Your task to perform on an android device: Clear all items from cart on walmart.com. Search for razer blade on walmart.com, select the first entry, add it to the cart, then select checkout. Image 0: 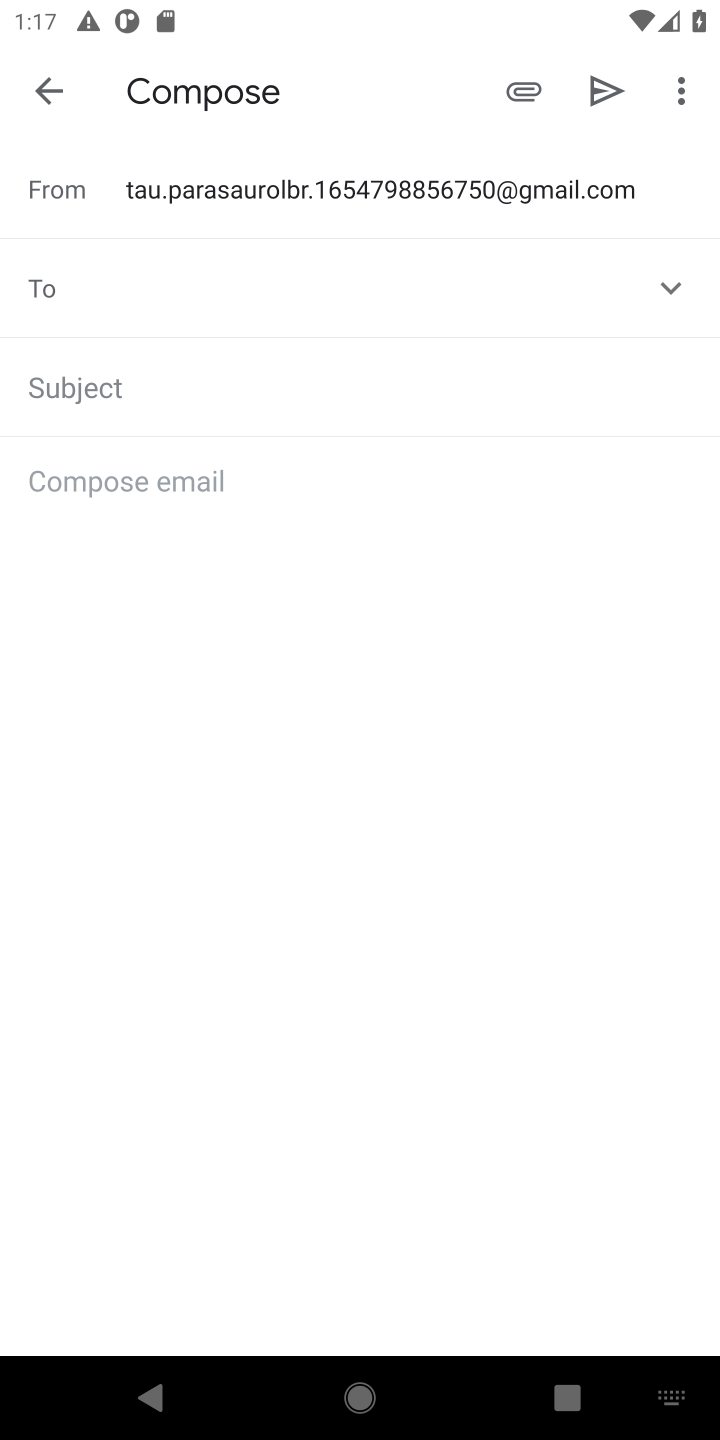
Step 0: press home button
Your task to perform on an android device: Clear all items from cart on walmart.com. Search for razer blade on walmart.com, select the first entry, add it to the cart, then select checkout. Image 1: 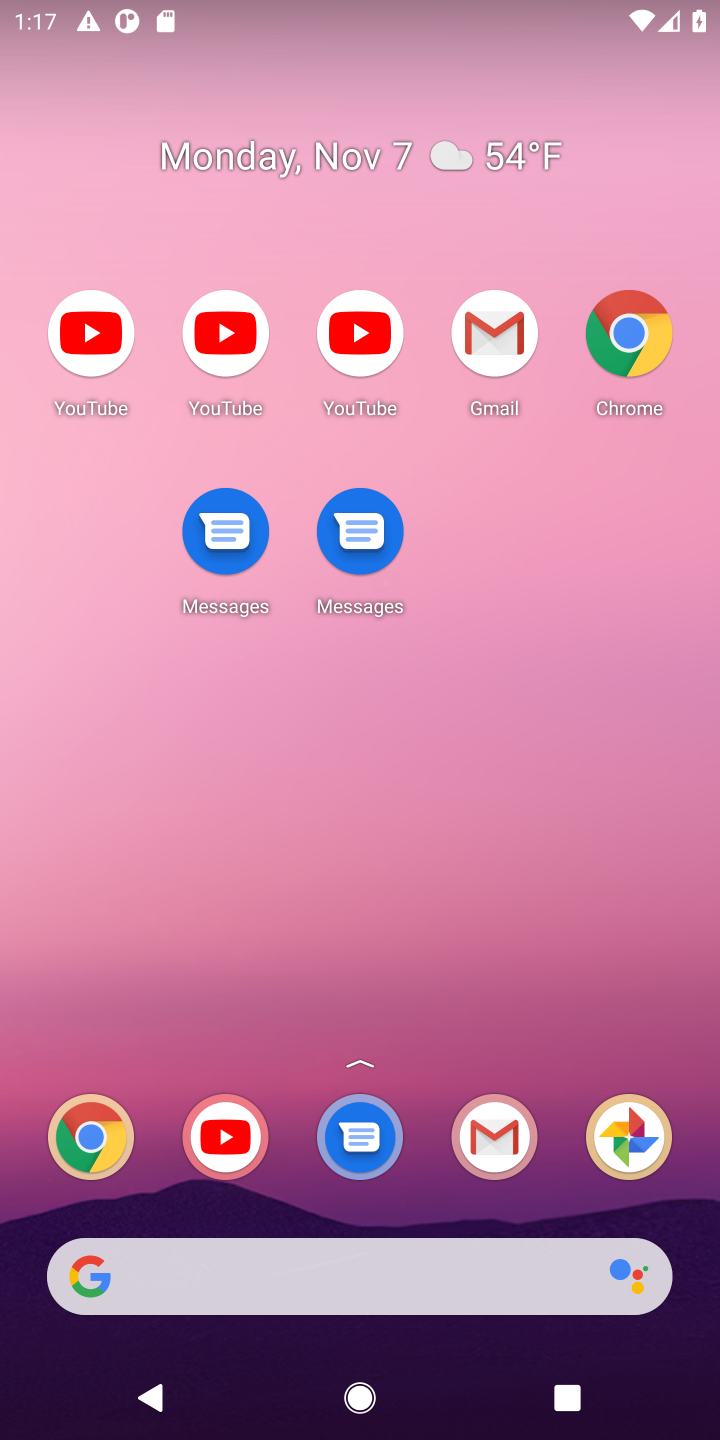
Step 1: drag from (414, 1068) to (389, 99)
Your task to perform on an android device: Clear all items from cart on walmart.com. Search for razer blade on walmart.com, select the first entry, add it to the cart, then select checkout. Image 2: 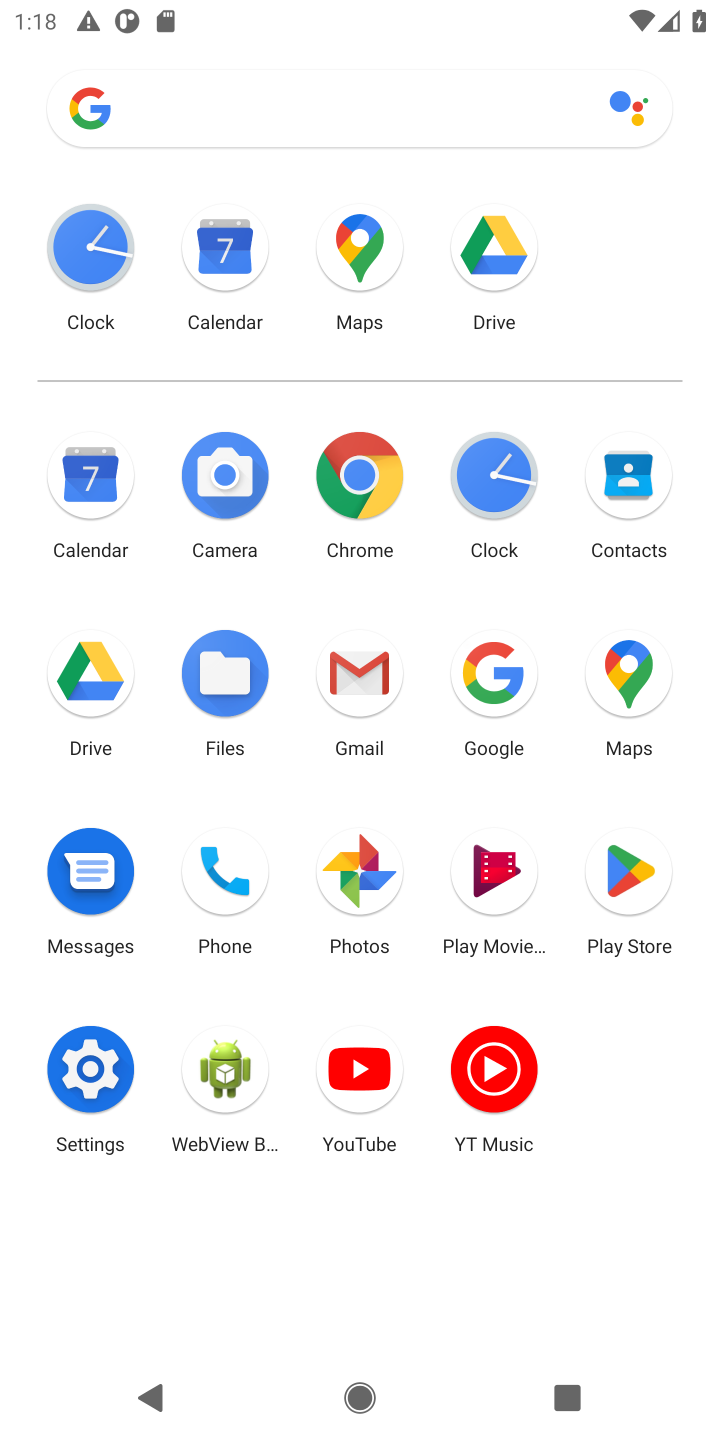
Step 2: click (363, 485)
Your task to perform on an android device: Clear all items from cart on walmart.com. Search for razer blade on walmart.com, select the first entry, add it to the cart, then select checkout. Image 3: 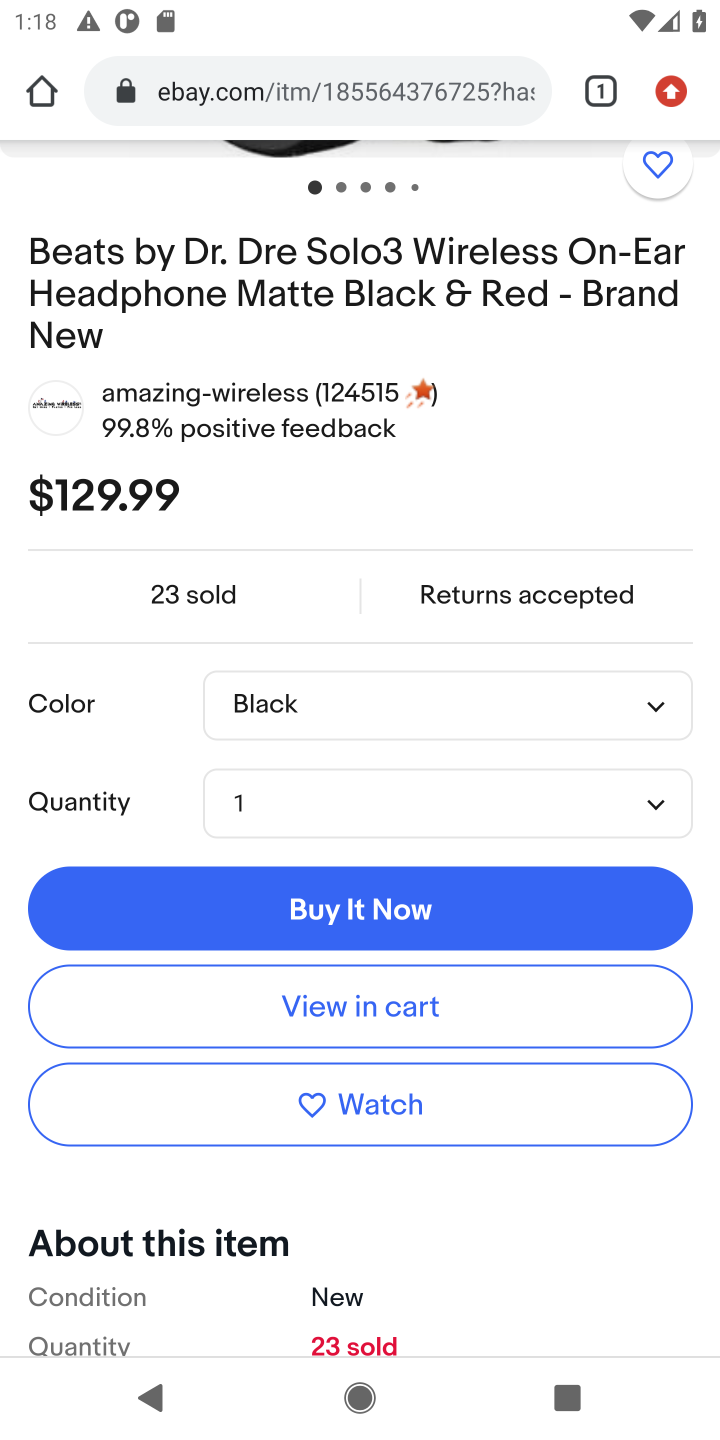
Step 3: click (426, 89)
Your task to perform on an android device: Clear all items from cart on walmart.com. Search for razer blade on walmart.com, select the first entry, add it to the cart, then select checkout. Image 4: 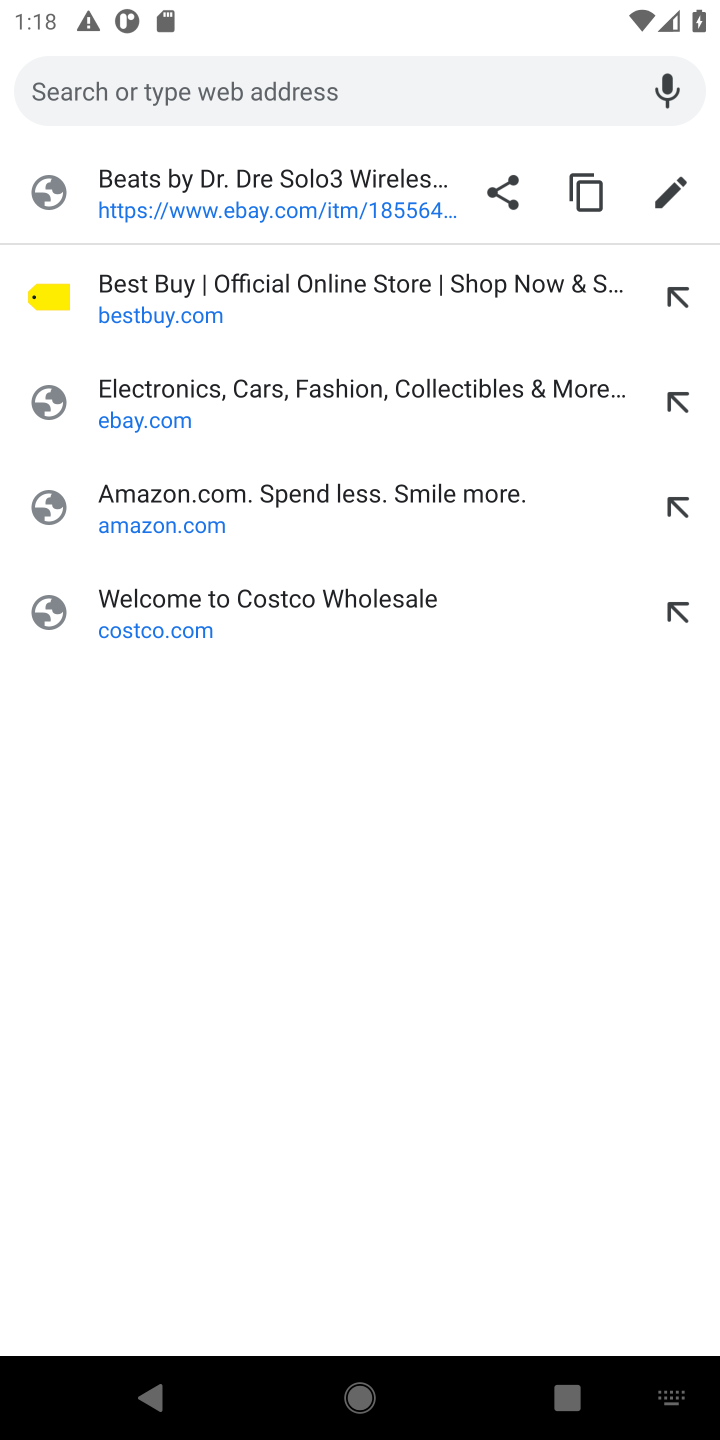
Step 4: type "walmart.com"
Your task to perform on an android device: Clear all items from cart on walmart.com. Search for razer blade on walmart.com, select the first entry, add it to the cart, then select checkout. Image 5: 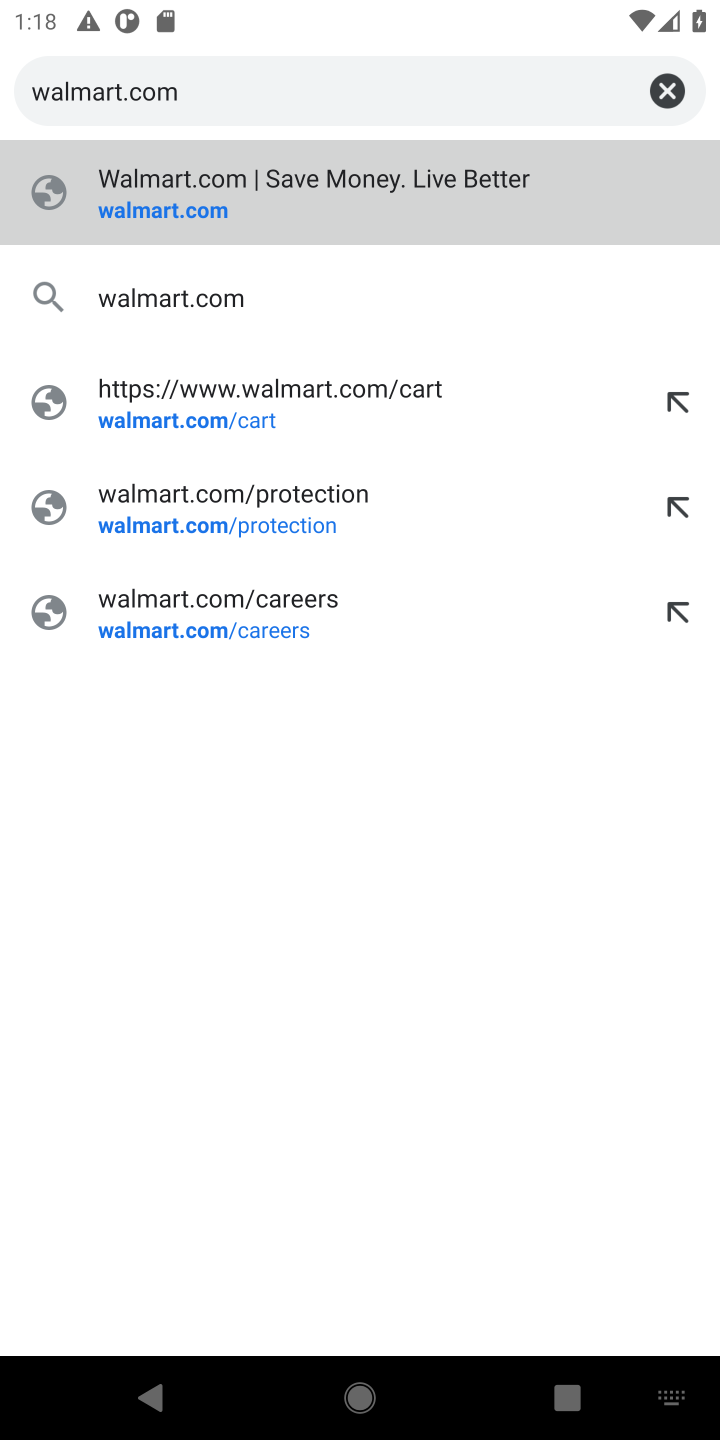
Step 5: press enter
Your task to perform on an android device: Clear all items from cart on walmart.com. Search for razer blade on walmart.com, select the first entry, add it to the cart, then select checkout. Image 6: 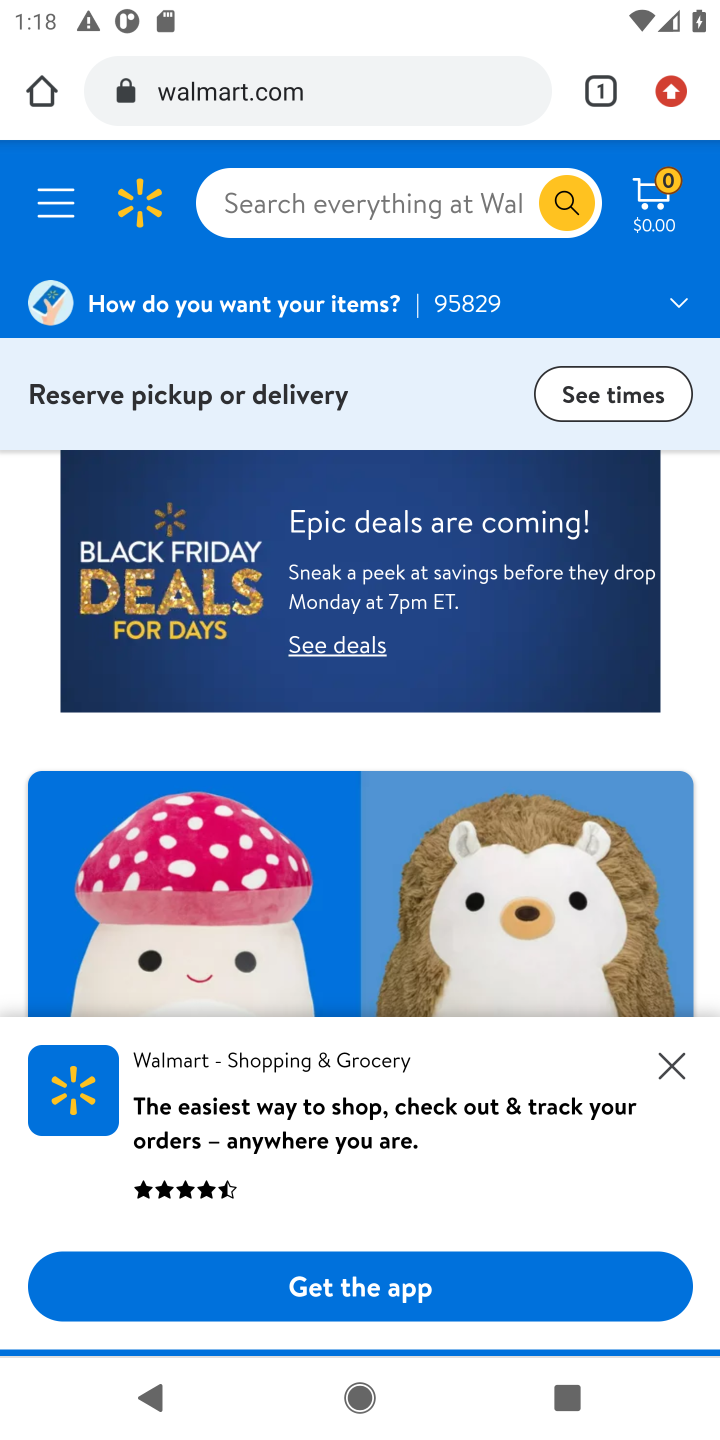
Step 6: click (667, 210)
Your task to perform on an android device: Clear all items from cart on walmart.com. Search for razer blade on walmart.com, select the first entry, add it to the cart, then select checkout. Image 7: 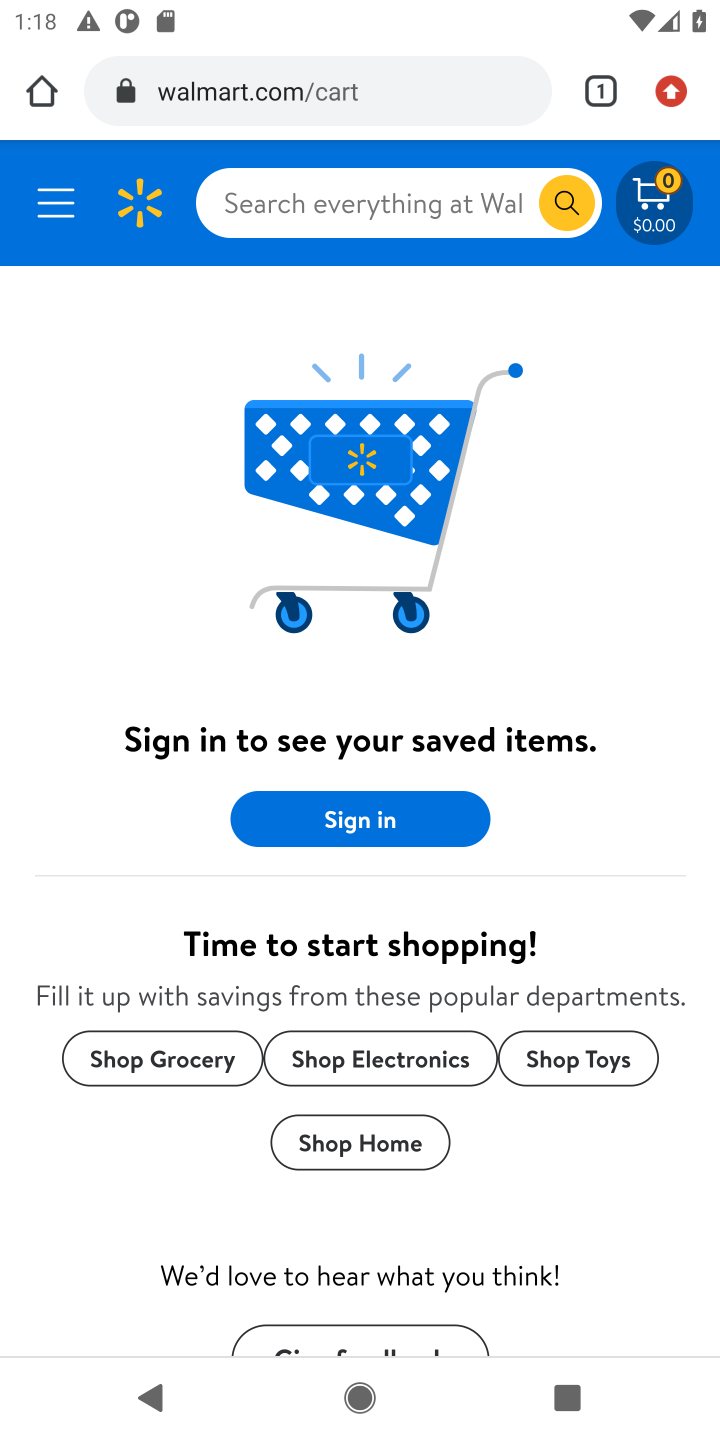
Step 7: click (412, 183)
Your task to perform on an android device: Clear all items from cart on walmart.com. Search for razer blade on walmart.com, select the first entry, add it to the cart, then select checkout. Image 8: 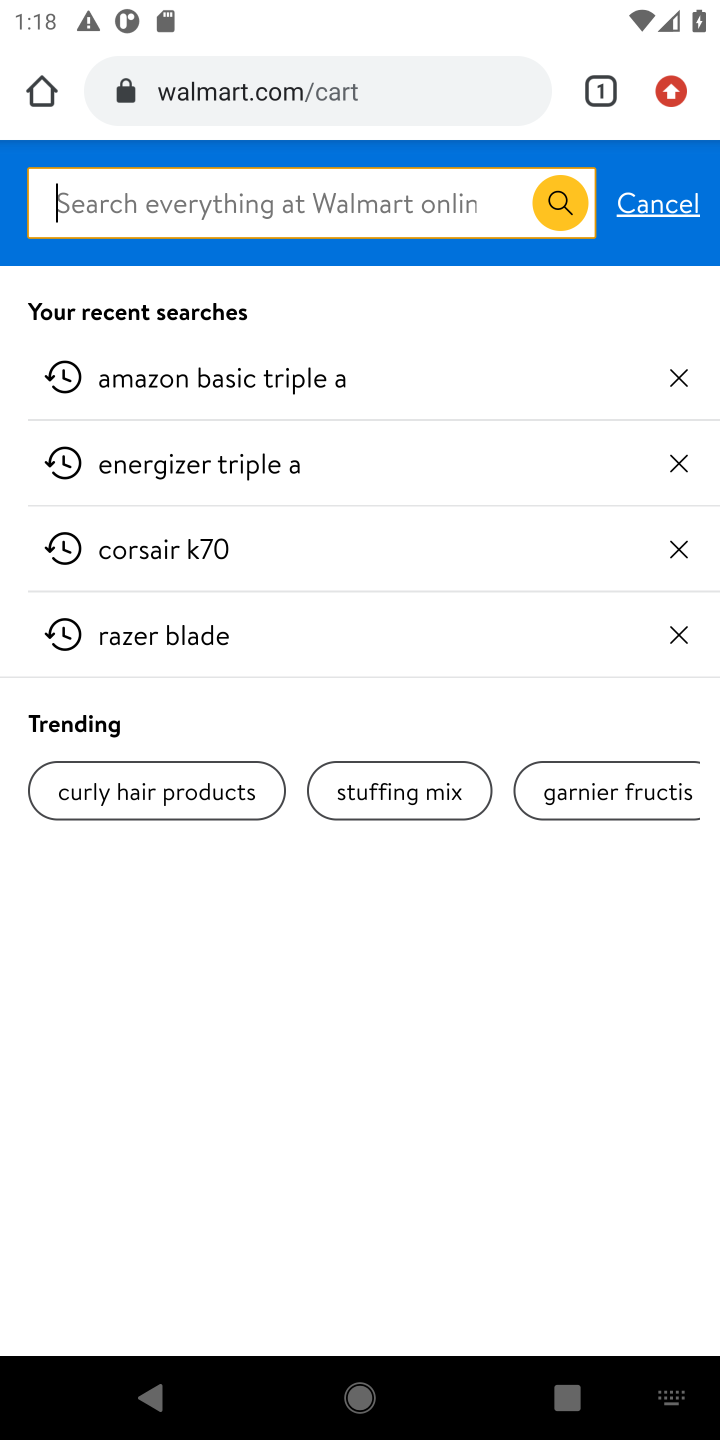
Step 8: type "razer blade"
Your task to perform on an android device: Clear all items from cart on walmart.com. Search for razer blade on walmart.com, select the first entry, add it to the cart, then select checkout. Image 9: 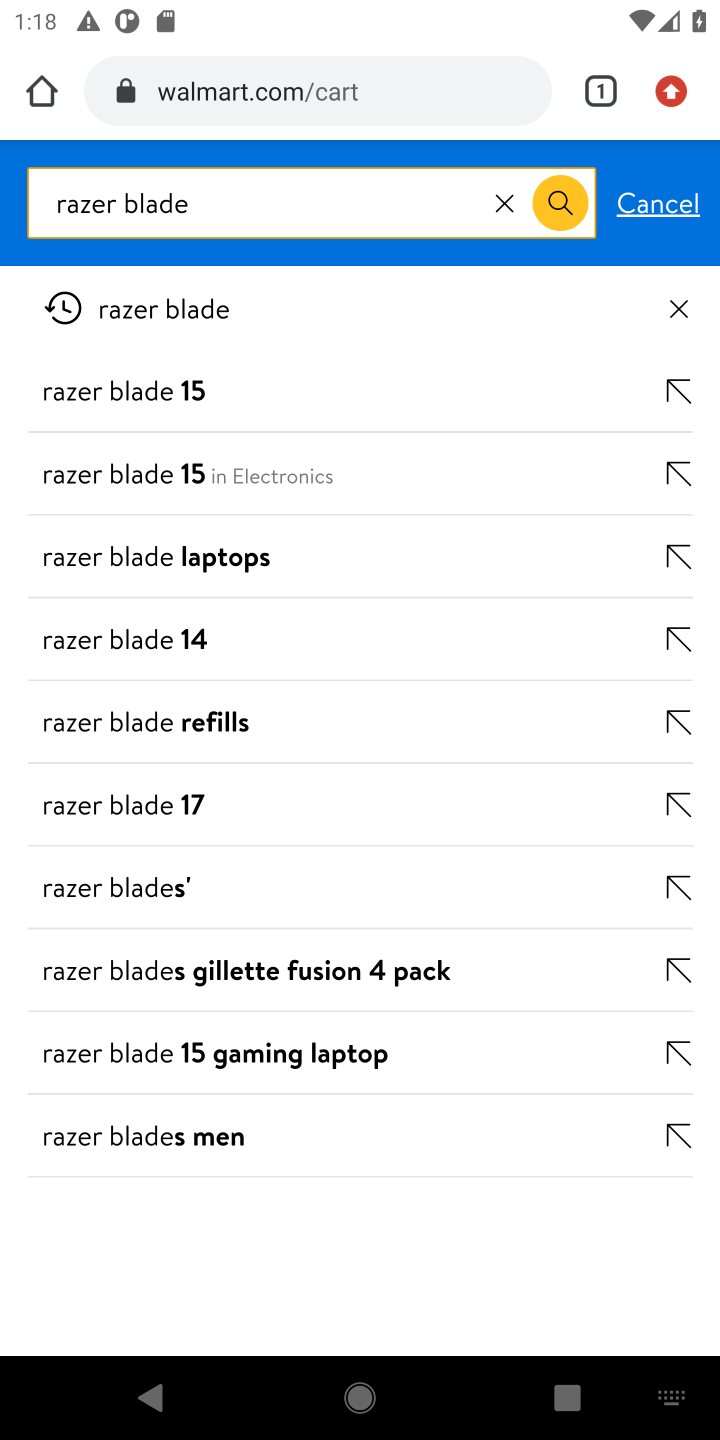
Step 9: press enter
Your task to perform on an android device: Clear all items from cart on walmart.com. Search for razer blade on walmart.com, select the first entry, add it to the cart, then select checkout. Image 10: 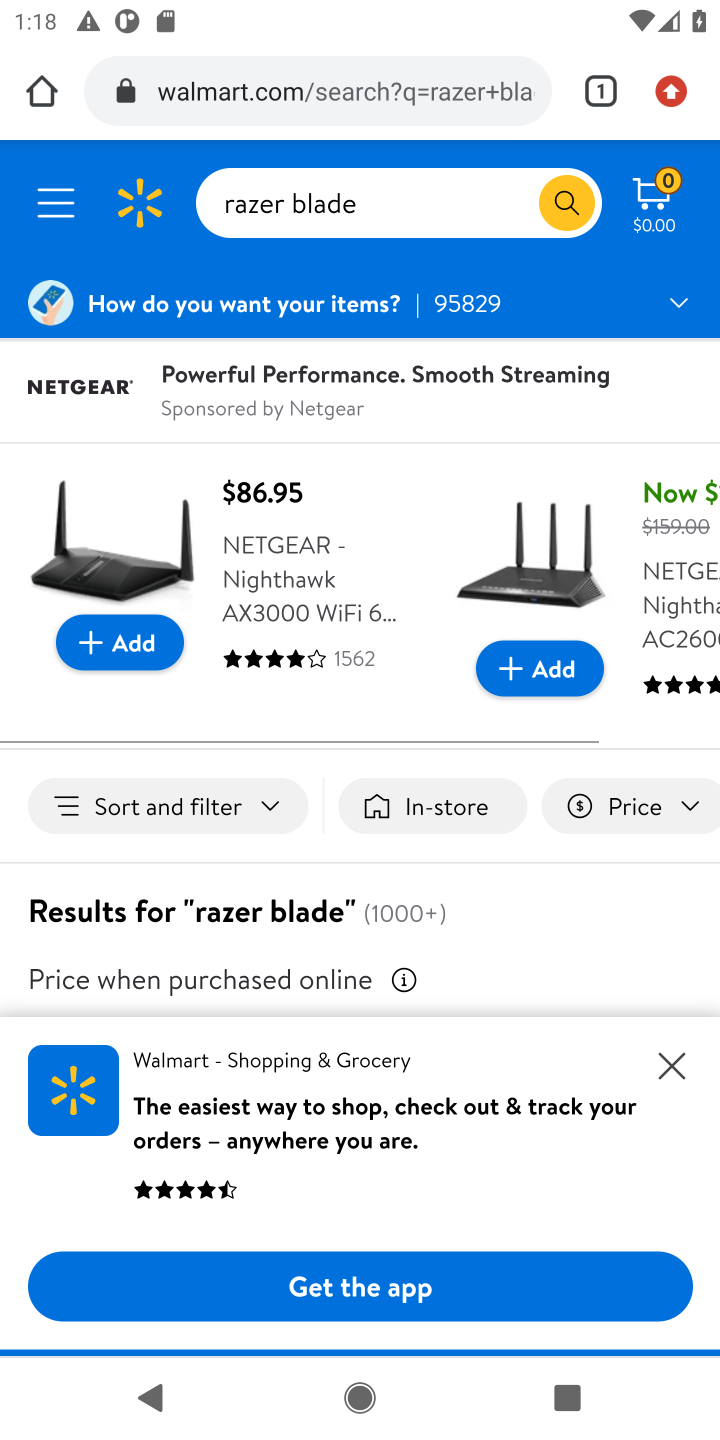
Step 10: task complete